Your task to perform on an android device: Do I have any events this weekend? Image 0: 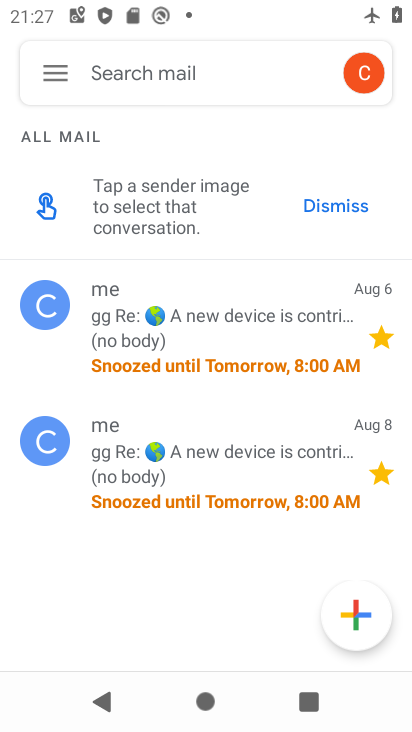
Step 0: press home button
Your task to perform on an android device: Do I have any events this weekend? Image 1: 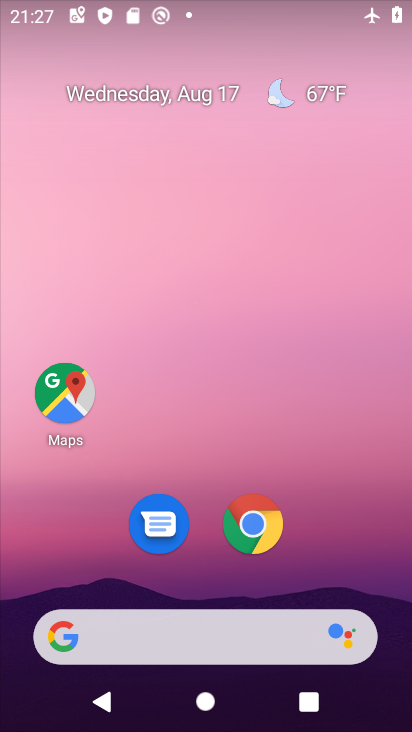
Step 1: drag from (325, 519) to (327, 9)
Your task to perform on an android device: Do I have any events this weekend? Image 2: 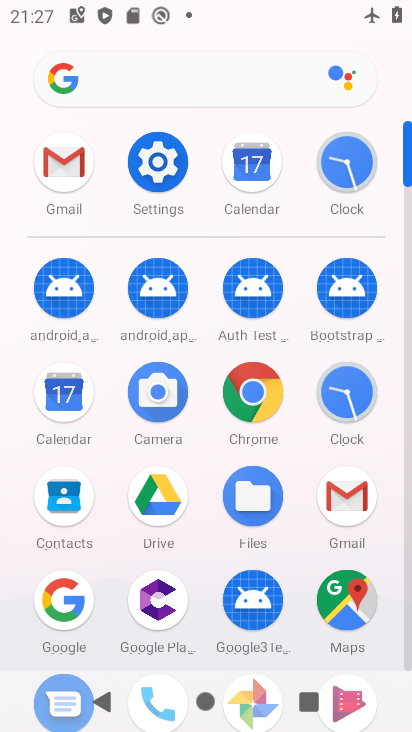
Step 2: click (251, 162)
Your task to perform on an android device: Do I have any events this weekend? Image 3: 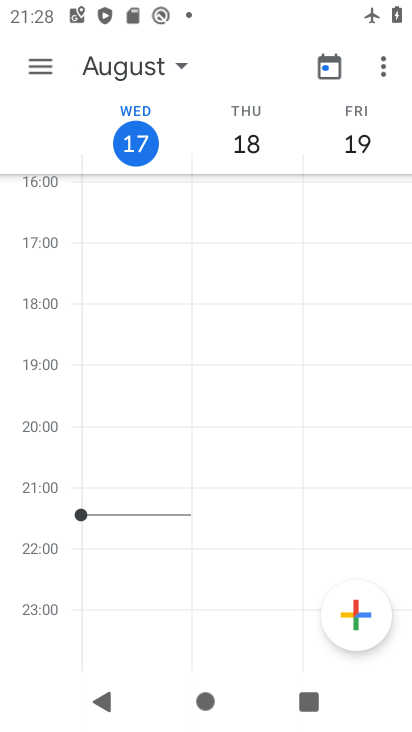
Step 3: click (46, 70)
Your task to perform on an android device: Do I have any events this weekend? Image 4: 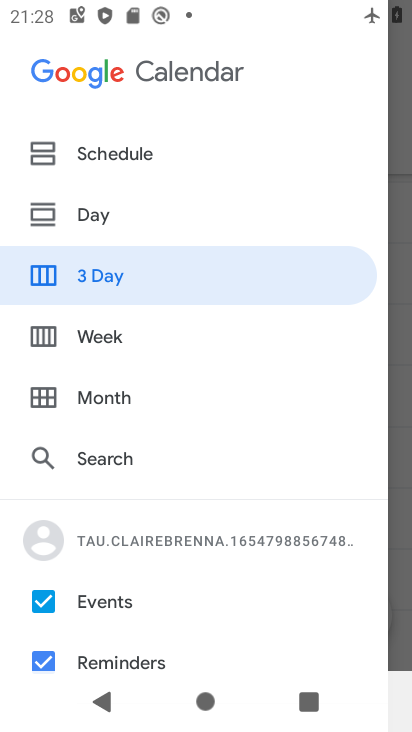
Step 4: click (51, 337)
Your task to perform on an android device: Do I have any events this weekend? Image 5: 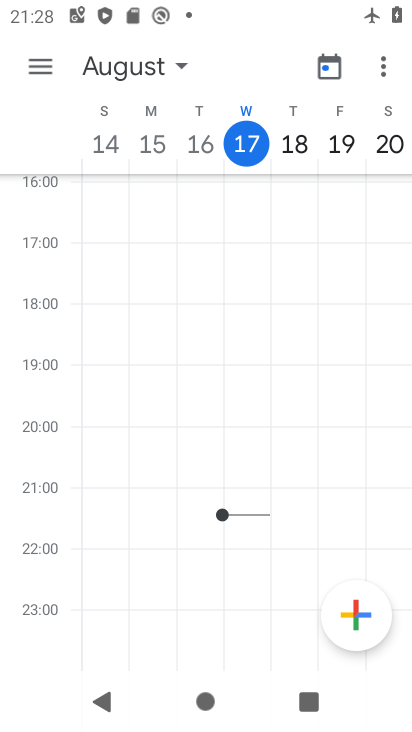
Step 5: task complete